Your task to perform on an android device: turn off location Image 0: 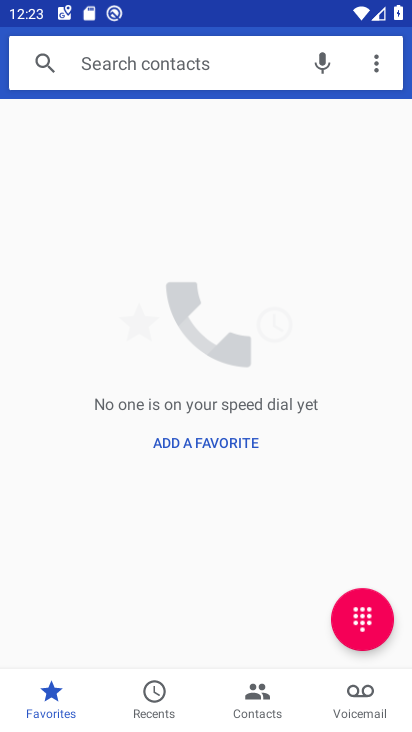
Step 0: press home button
Your task to perform on an android device: turn off location Image 1: 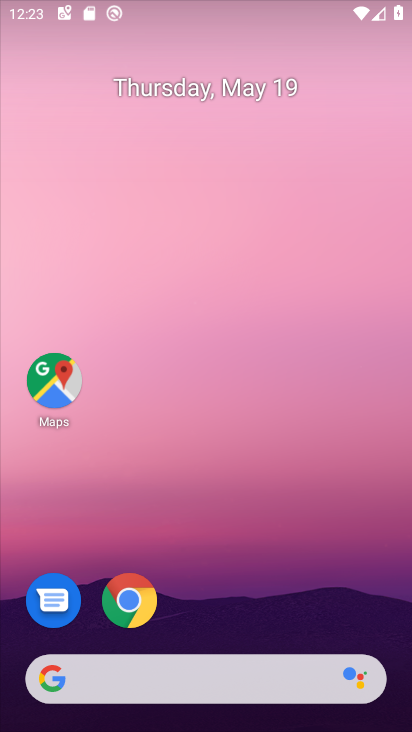
Step 1: drag from (299, 571) to (228, 87)
Your task to perform on an android device: turn off location Image 2: 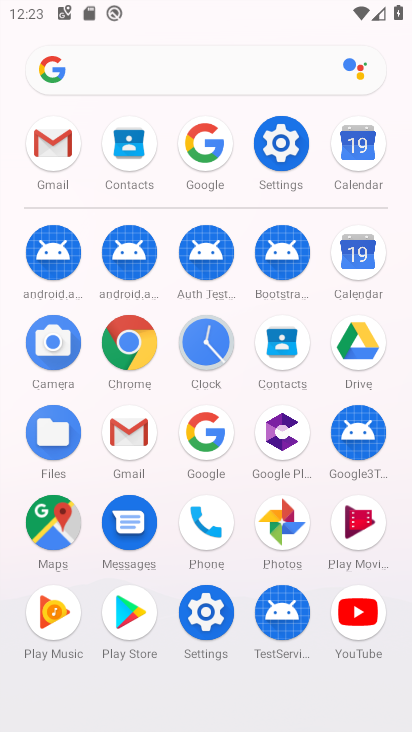
Step 2: click (291, 151)
Your task to perform on an android device: turn off location Image 3: 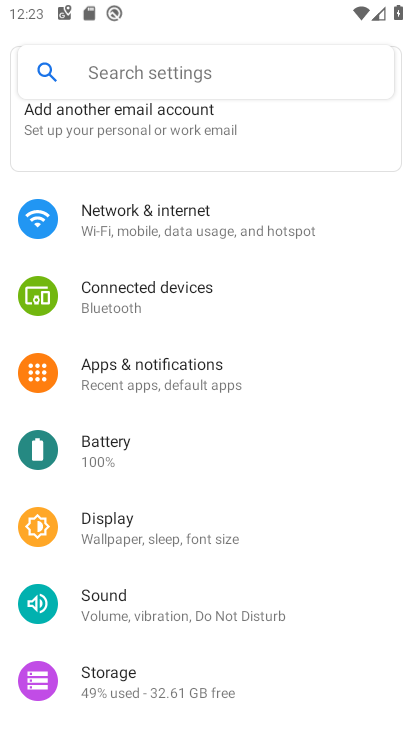
Step 3: drag from (284, 659) to (254, 134)
Your task to perform on an android device: turn off location Image 4: 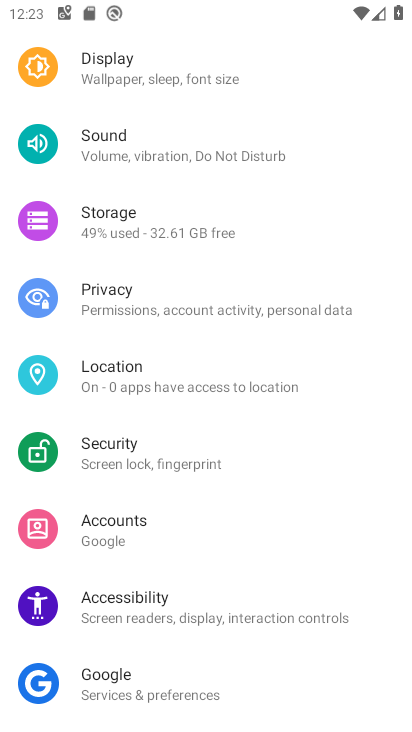
Step 4: click (150, 378)
Your task to perform on an android device: turn off location Image 5: 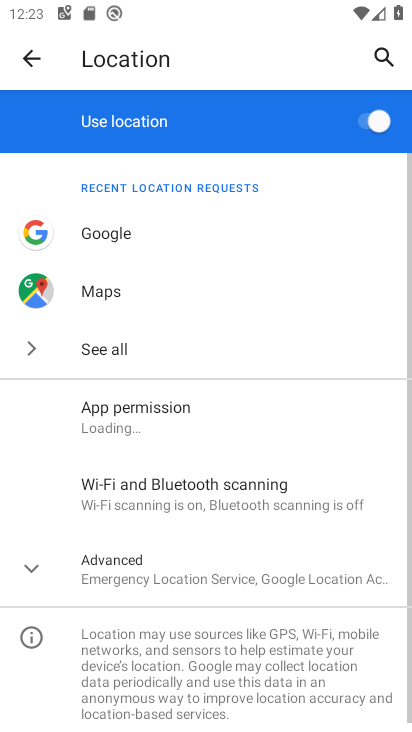
Step 5: drag from (251, 544) to (260, 355)
Your task to perform on an android device: turn off location Image 6: 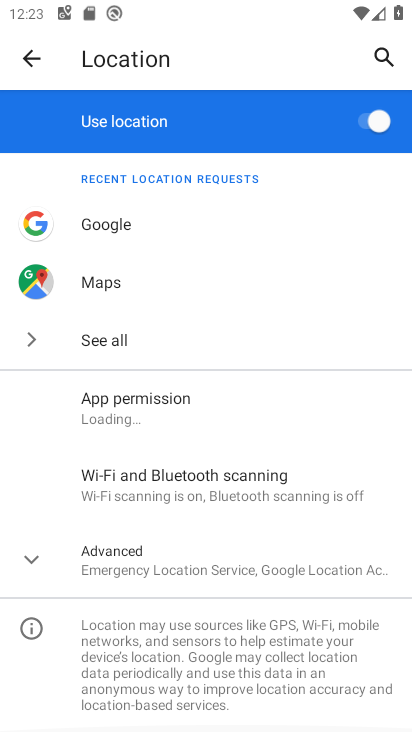
Step 6: click (377, 115)
Your task to perform on an android device: turn off location Image 7: 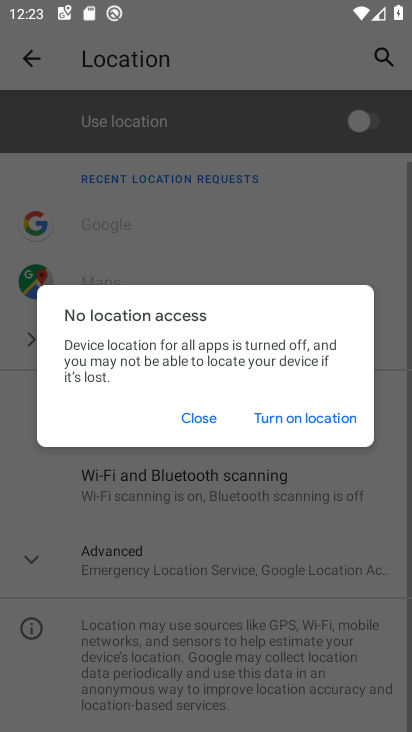
Step 7: task complete